Your task to perform on an android device: Go to internet settings Image 0: 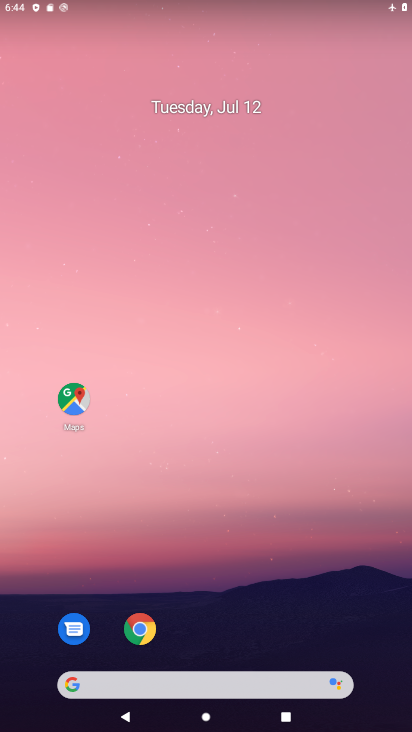
Step 0: drag from (233, 564) to (197, 107)
Your task to perform on an android device: Go to internet settings Image 1: 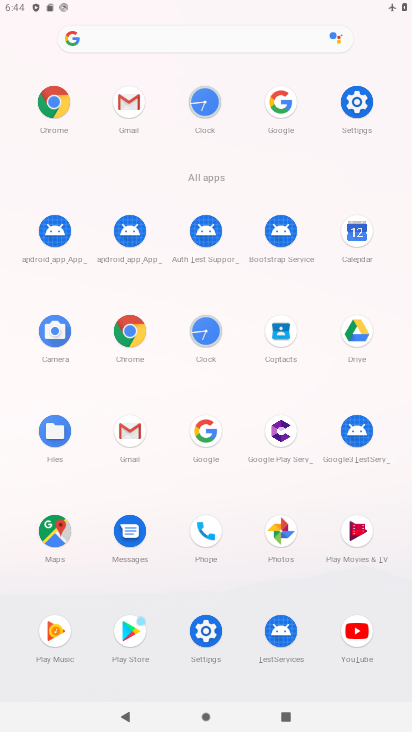
Step 1: click (355, 100)
Your task to perform on an android device: Go to internet settings Image 2: 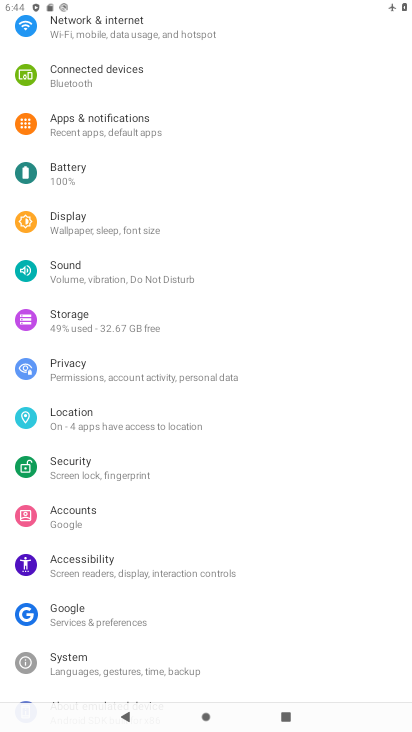
Step 2: click (105, 25)
Your task to perform on an android device: Go to internet settings Image 3: 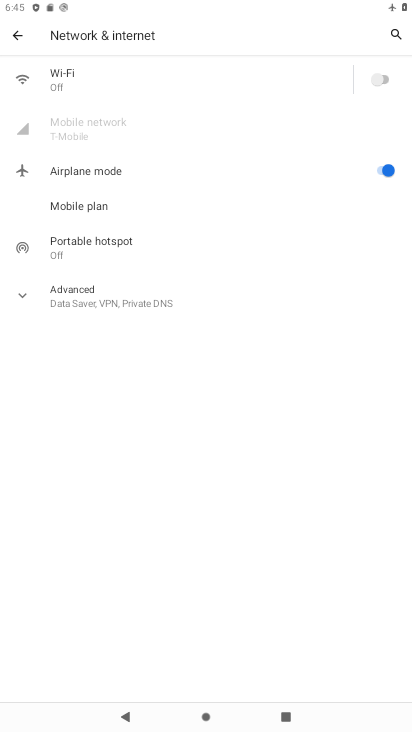
Step 3: task complete